Your task to perform on an android device: Open my contact list Image 0: 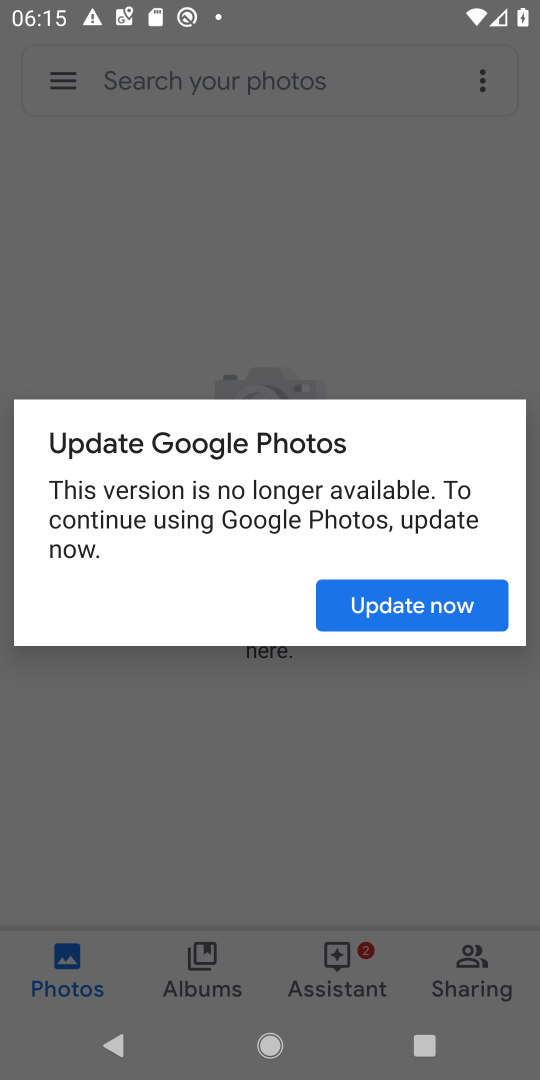
Step 0: press home button
Your task to perform on an android device: Open my contact list Image 1: 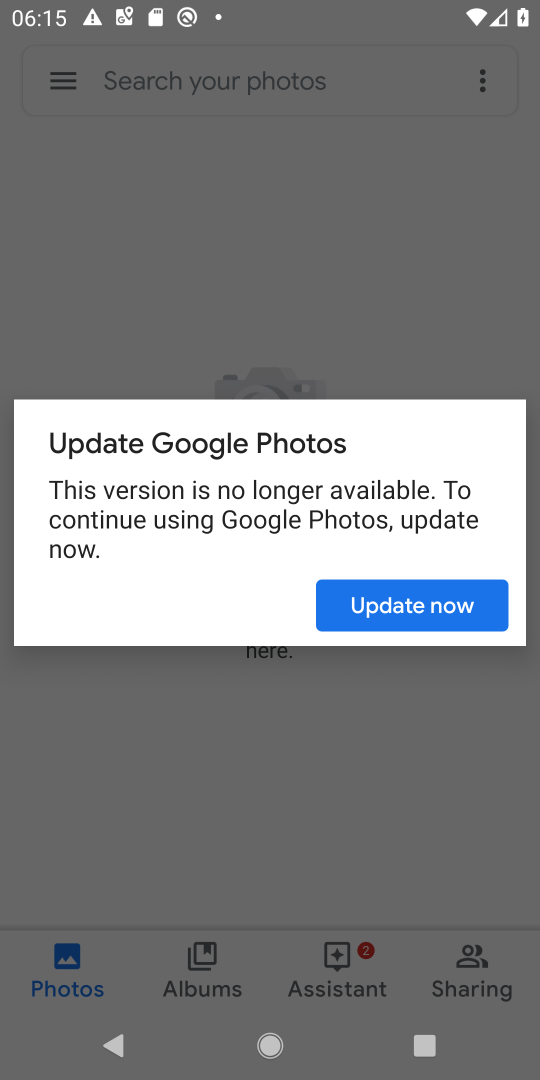
Step 1: press home button
Your task to perform on an android device: Open my contact list Image 2: 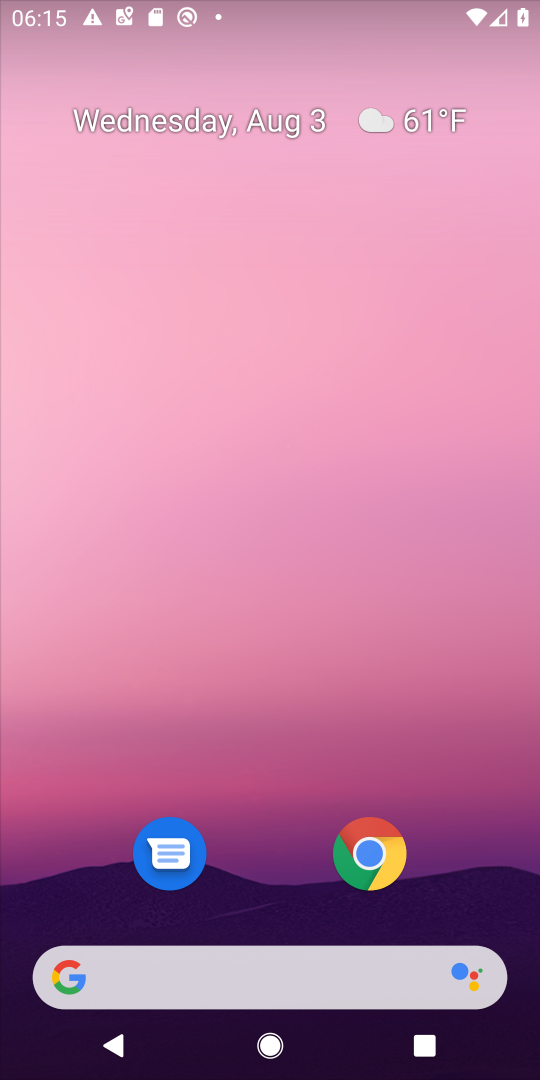
Step 2: press home button
Your task to perform on an android device: Open my contact list Image 3: 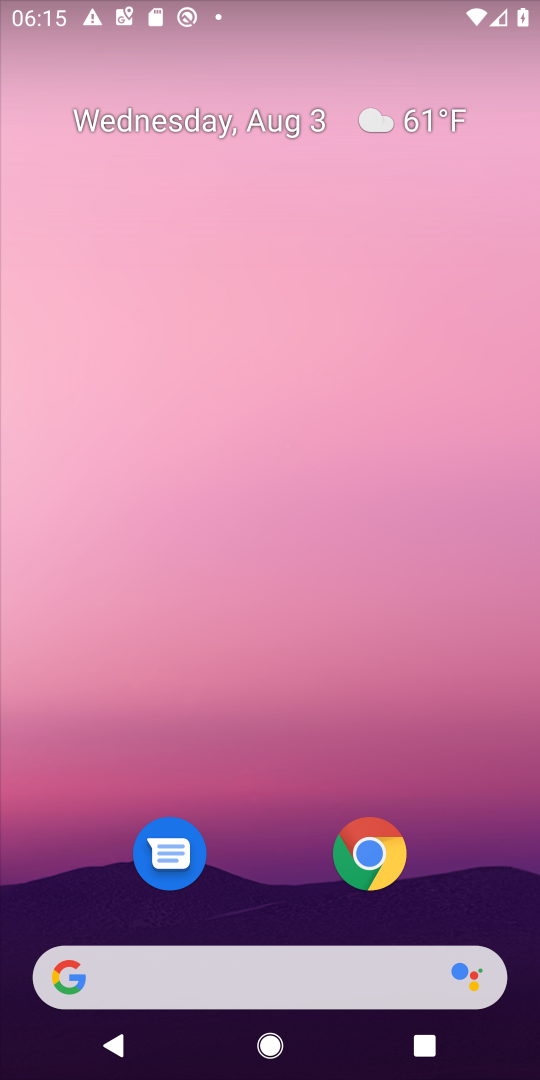
Step 3: press home button
Your task to perform on an android device: Open my contact list Image 4: 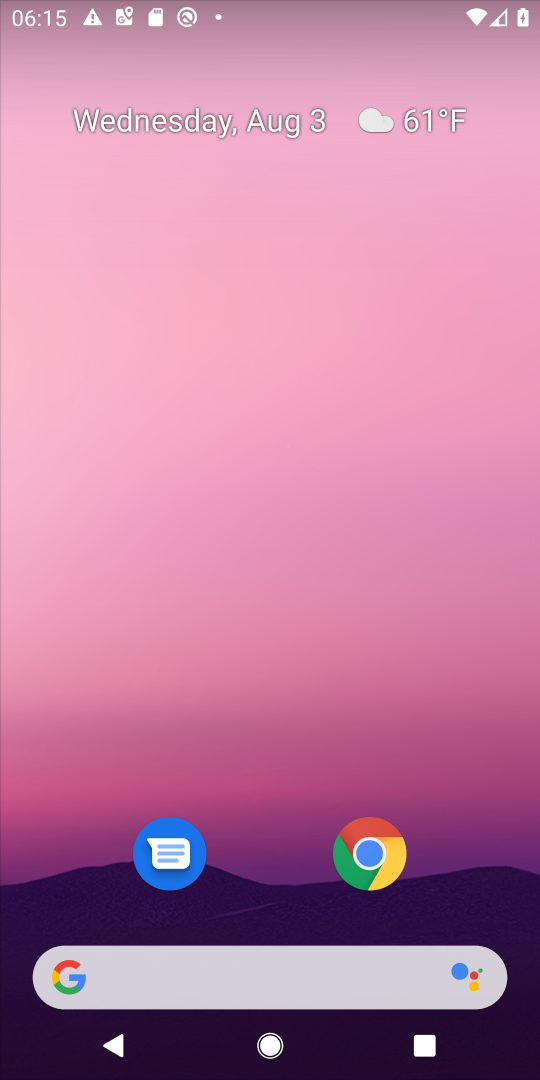
Step 4: drag from (295, 819) to (295, 122)
Your task to perform on an android device: Open my contact list Image 5: 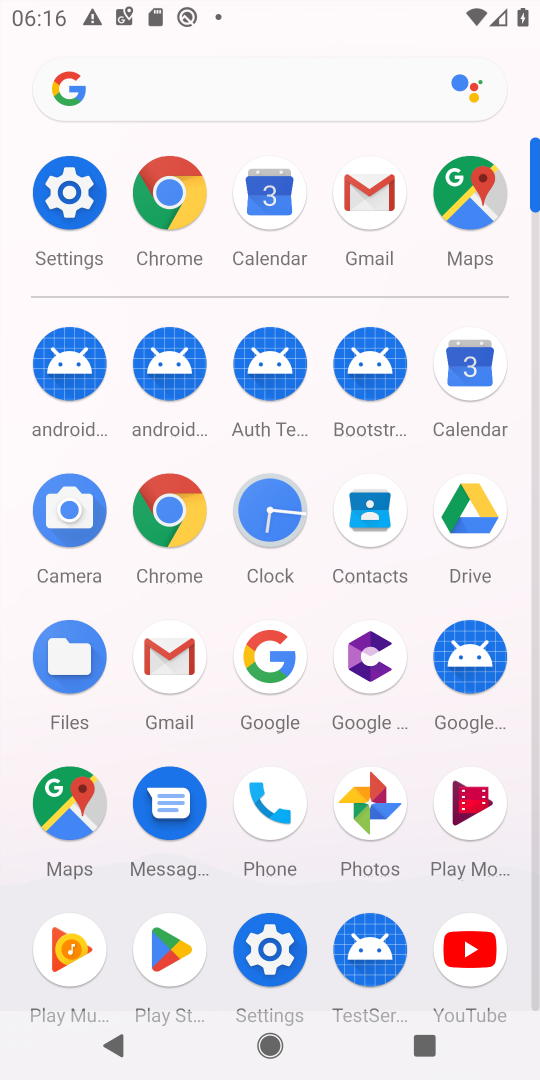
Step 5: click (370, 511)
Your task to perform on an android device: Open my contact list Image 6: 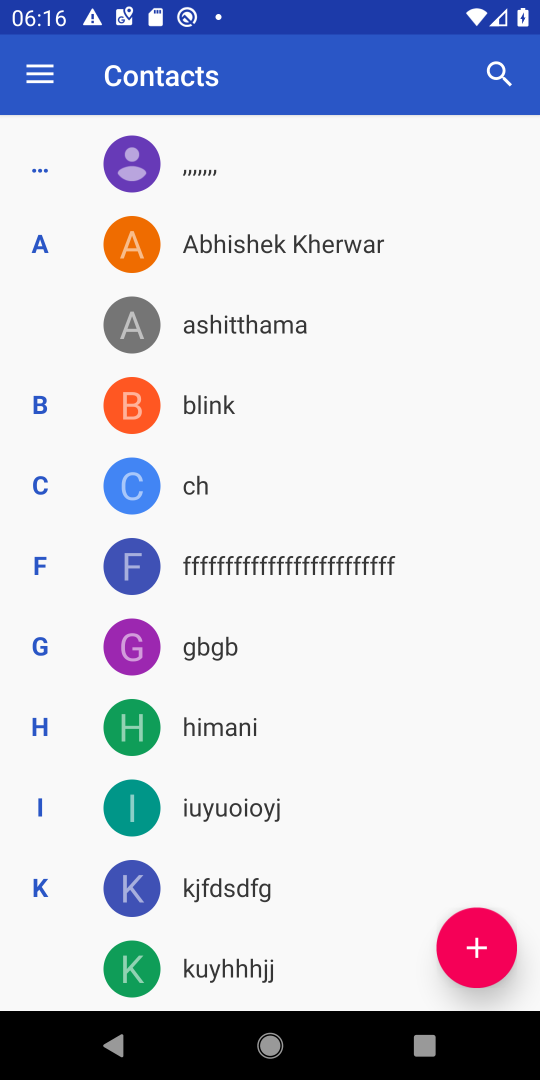
Step 6: task complete